Your task to perform on an android device: open chrome and create a bookmark for the current page Image 0: 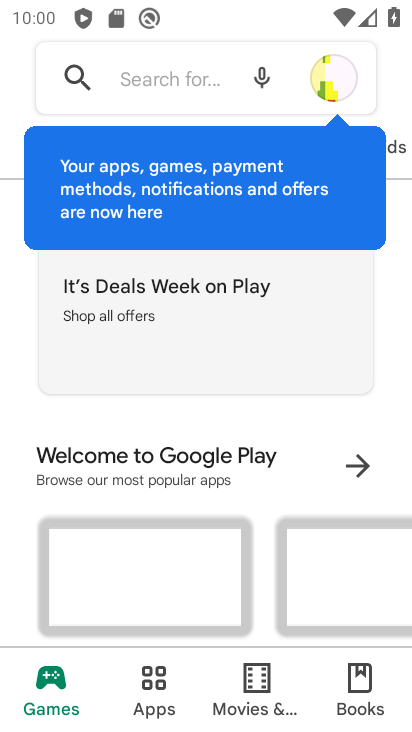
Step 0: press home button
Your task to perform on an android device: open chrome and create a bookmark for the current page Image 1: 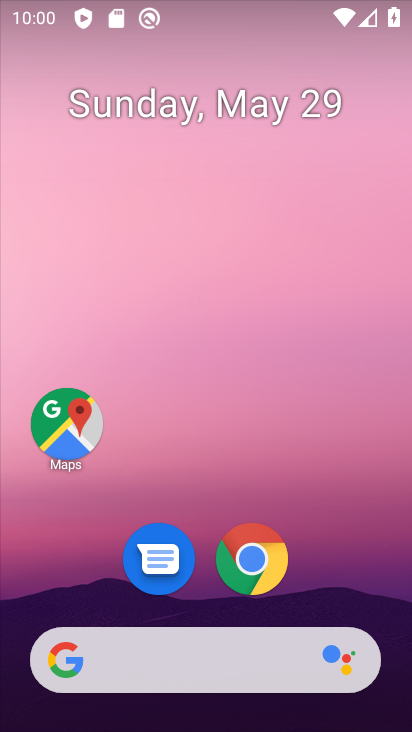
Step 1: drag from (209, 597) to (323, 3)
Your task to perform on an android device: open chrome and create a bookmark for the current page Image 2: 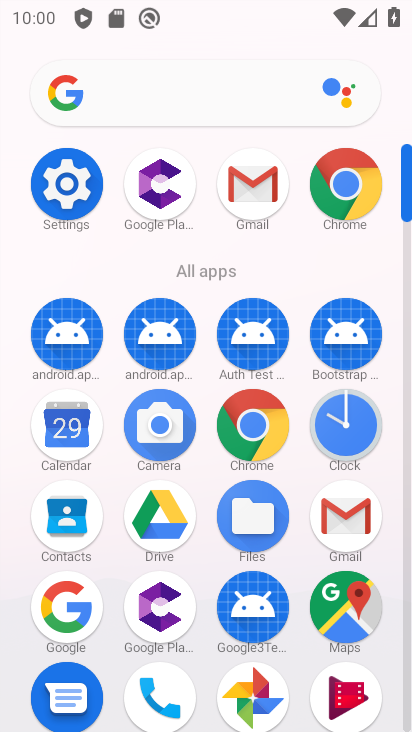
Step 2: click (355, 180)
Your task to perform on an android device: open chrome and create a bookmark for the current page Image 3: 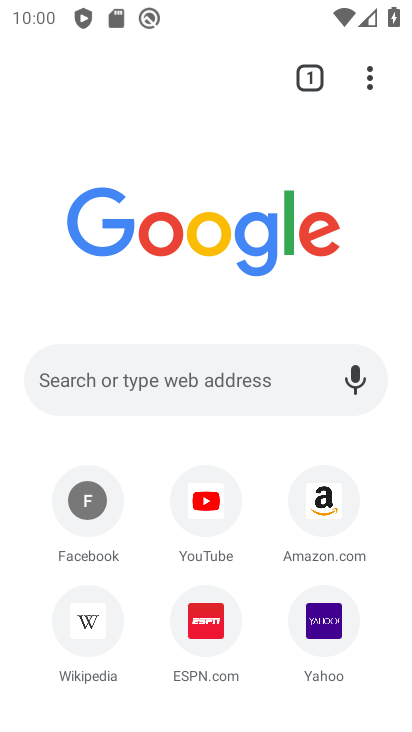
Step 3: click (367, 83)
Your task to perform on an android device: open chrome and create a bookmark for the current page Image 4: 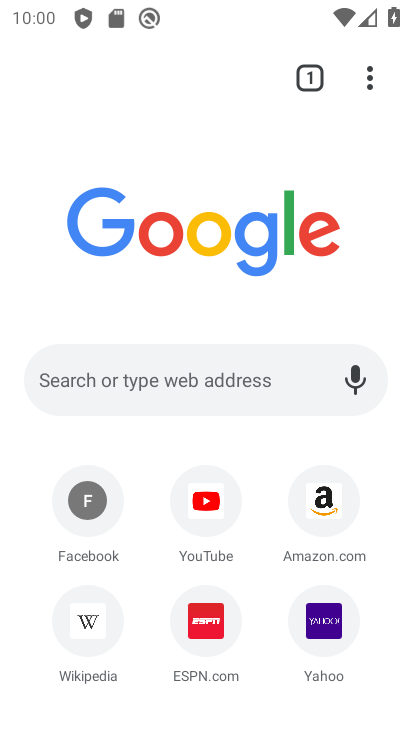
Step 4: click (372, 87)
Your task to perform on an android device: open chrome and create a bookmark for the current page Image 5: 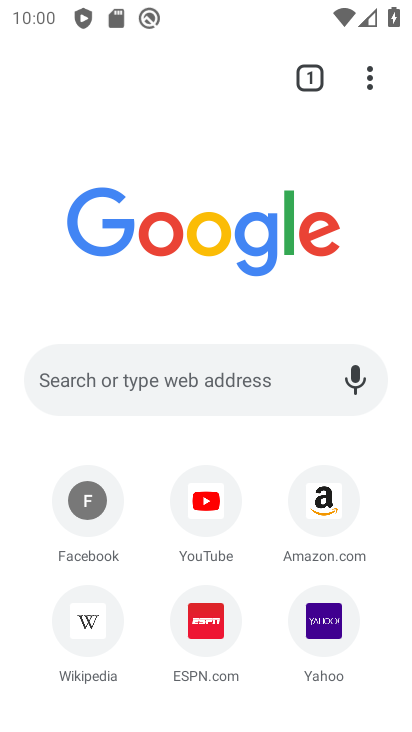
Step 5: click (371, 77)
Your task to perform on an android device: open chrome and create a bookmark for the current page Image 6: 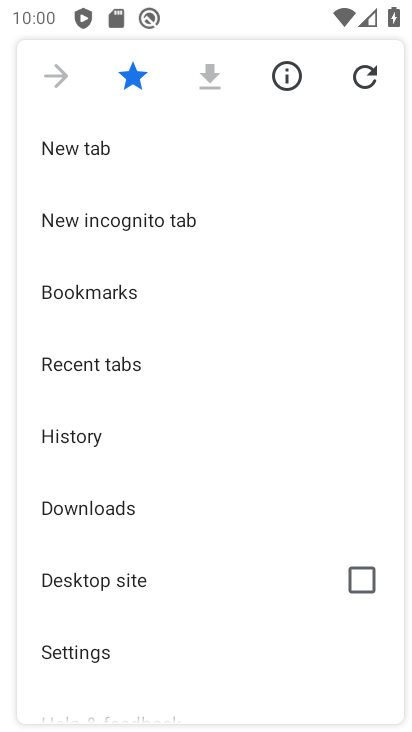
Step 6: task complete